Your task to perform on an android device: Open Yahoo.com Image 0: 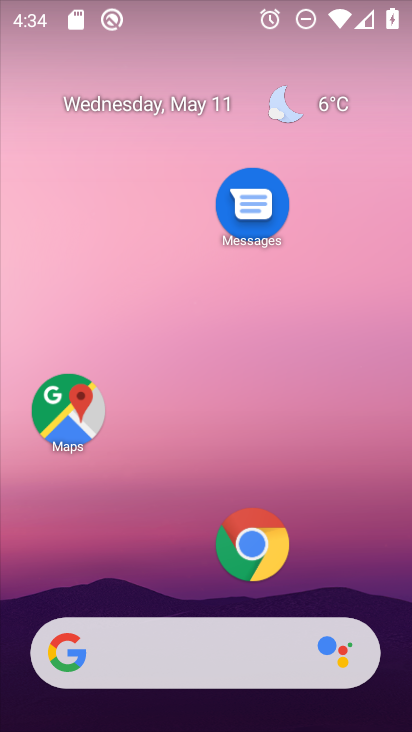
Step 0: click (244, 544)
Your task to perform on an android device: Open Yahoo.com Image 1: 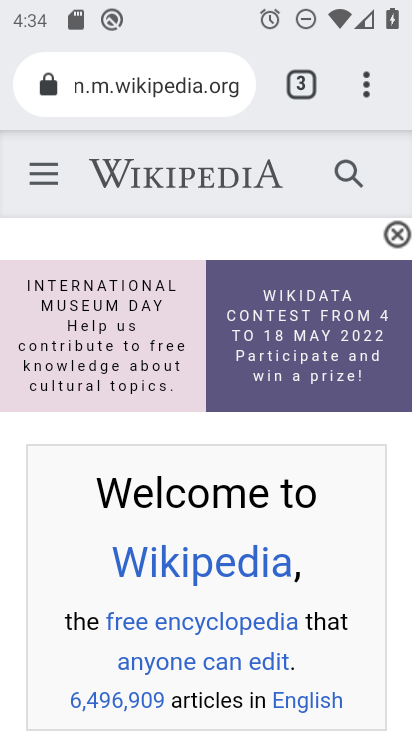
Step 1: click (291, 87)
Your task to perform on an android device: Open Yahoo.com Image 2: 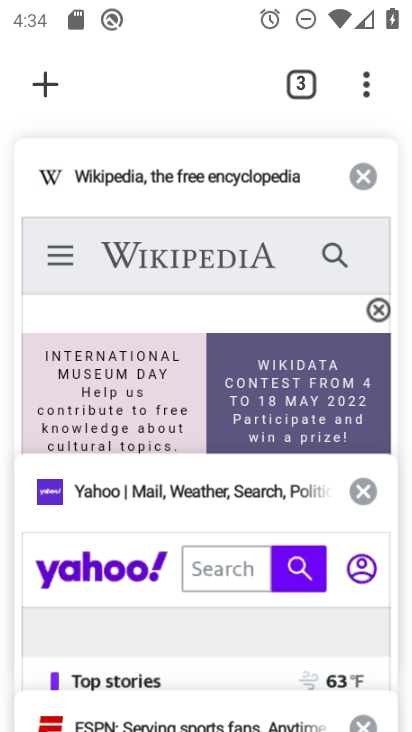
Step 2: click (33, 86)
Your task to perform on an android device: Open Yahoo.com Image 3: 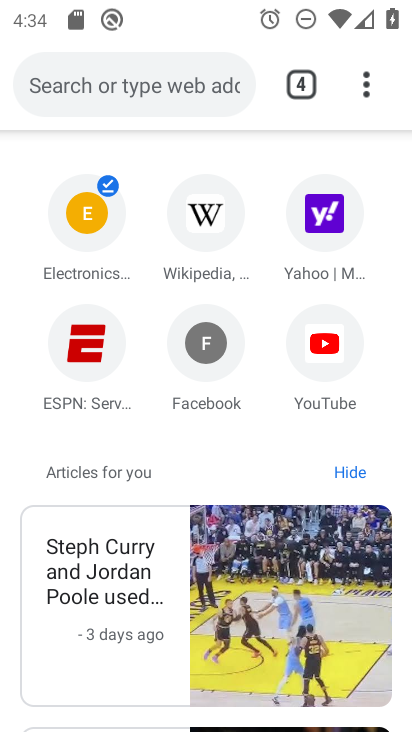
Step 3: click (315, 223)
Your task to perform on an android device: Open Yahoo.com Image 4: 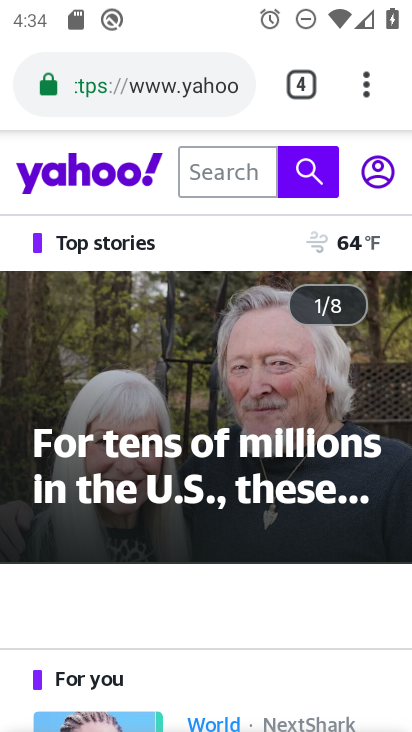
Step 4: task complete